Your task to perform on an android device: Open privacy settings Image 0: 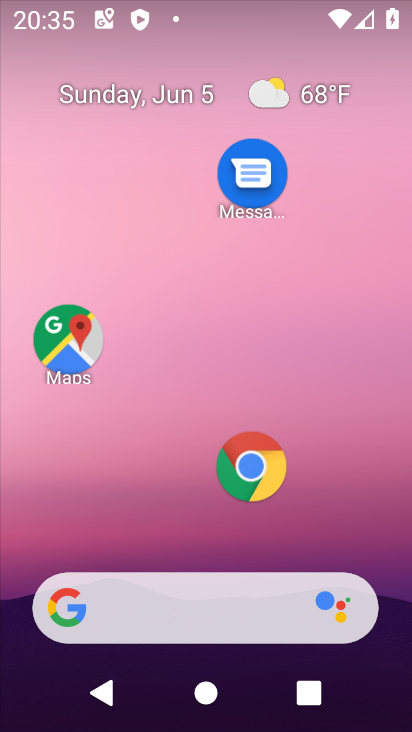
Step 0: drag from (238, 327) to (290, 114)
Your task to perform on an android device: Open privacy settings Image 1: 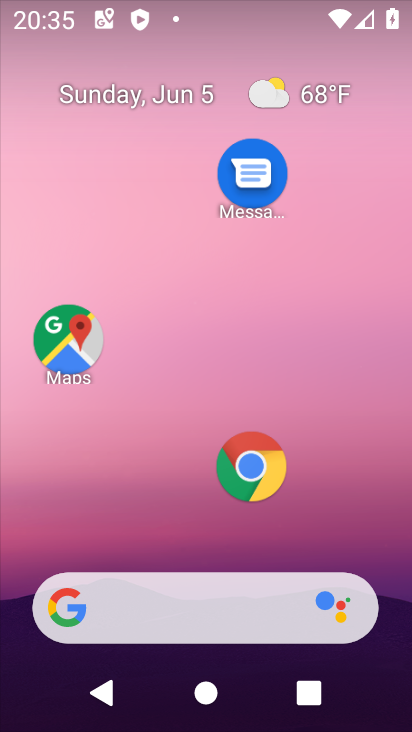
Step 1: drag from (212, 547) to (237, 70)
Your task to perform on an android device: Open privacy settings Image 2: 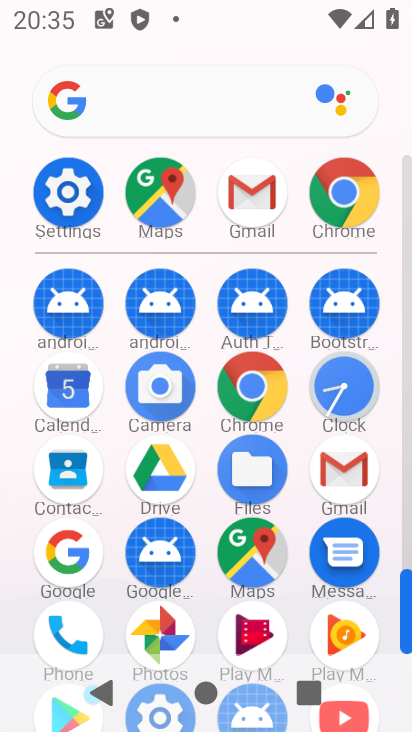
Step 2: click (88, 176)
Your task to perform on an android device: Open privacy settings Image 3: 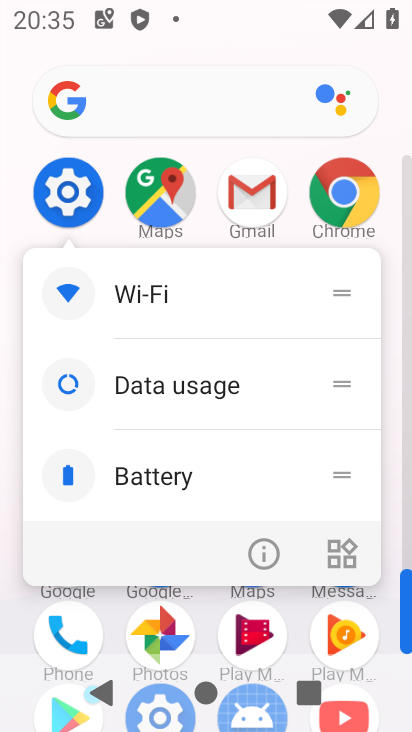
Step 3: click (253, 545)
Your task to perform on an android device: Open privacy settings Image 4: 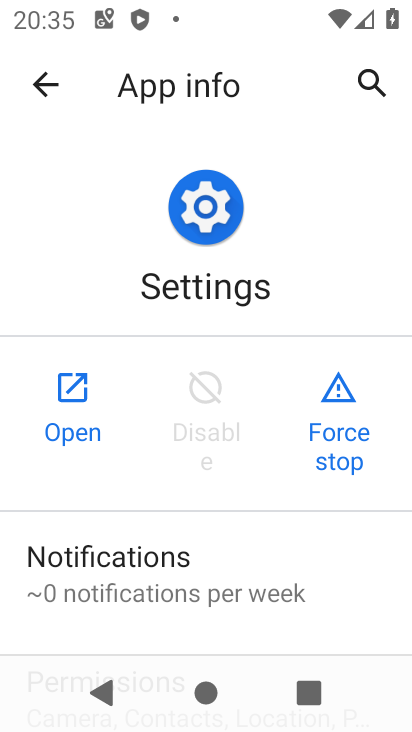
Step 4: click (93, 396)
Your task to perform on an android device: Open privacy settings Image 5: 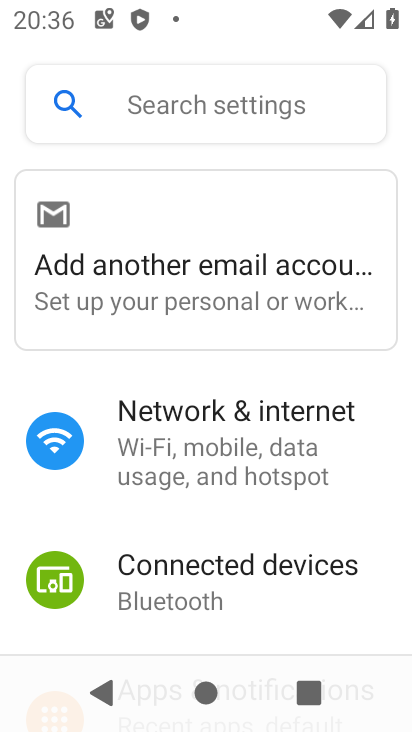
Step 5: drag from (190, 579) to (261, 214)
Your task to perform on an android device: Open privacy settings Image 6: 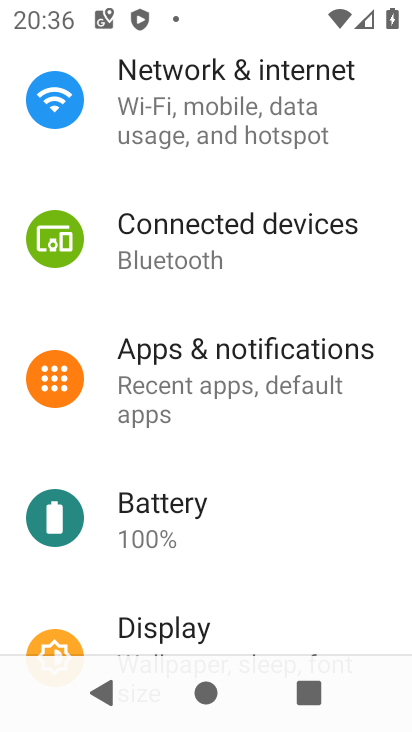
Step 6: drag from (242, 557) to (335, 174)
Your task to perform on an android device: Open privacy settings Image 7: 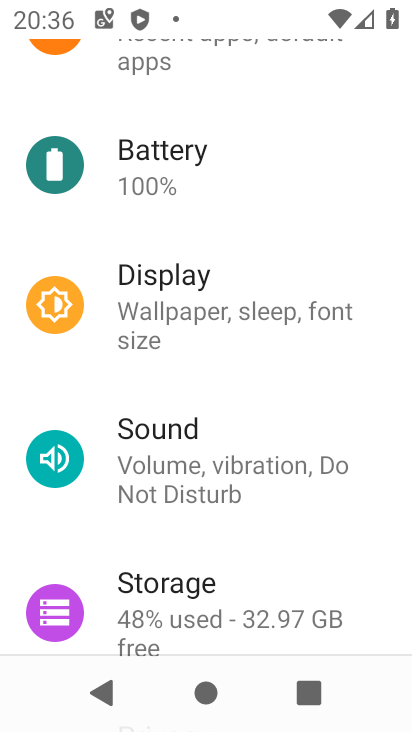
Step 7: drag from (191, 502) to (279, 150)
Your task to perform on an android device: Open privacy settings Image 8: 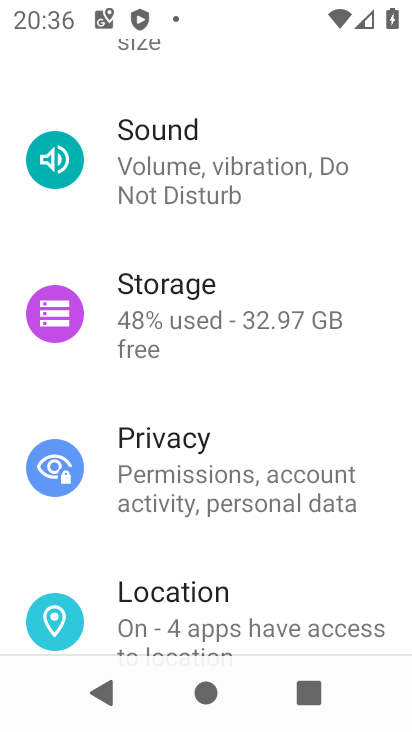
Step 8: click (185, 474)
Your task to perform on an android device: Open privacy settings Image 9: 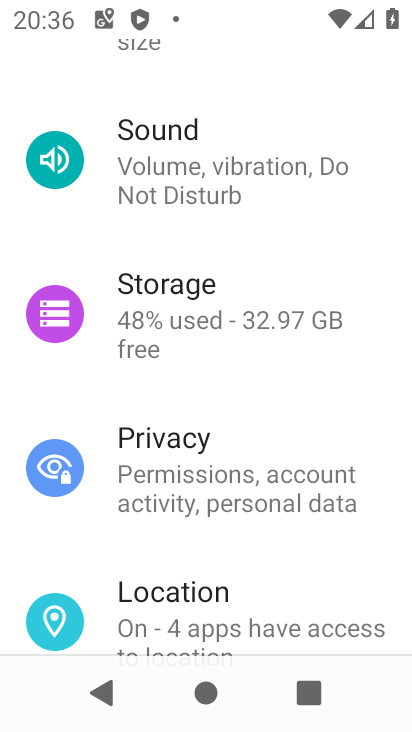
Step 9: task complete